Your task to perform on an android device: toggle pop-ups in chrome Image 0: 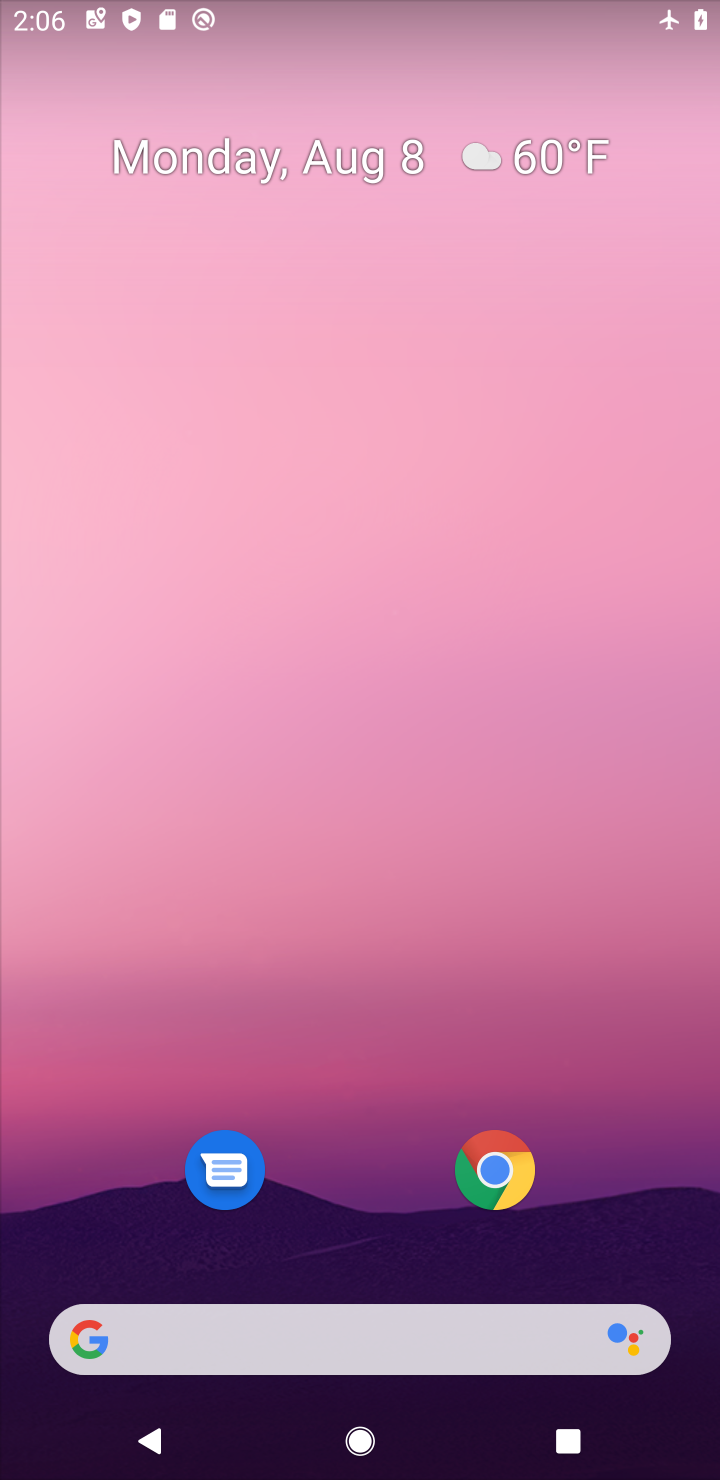
Step 0: click (505, 1178)
Your task to perform on an android device: toggle pop-ups in chrome Image 1: 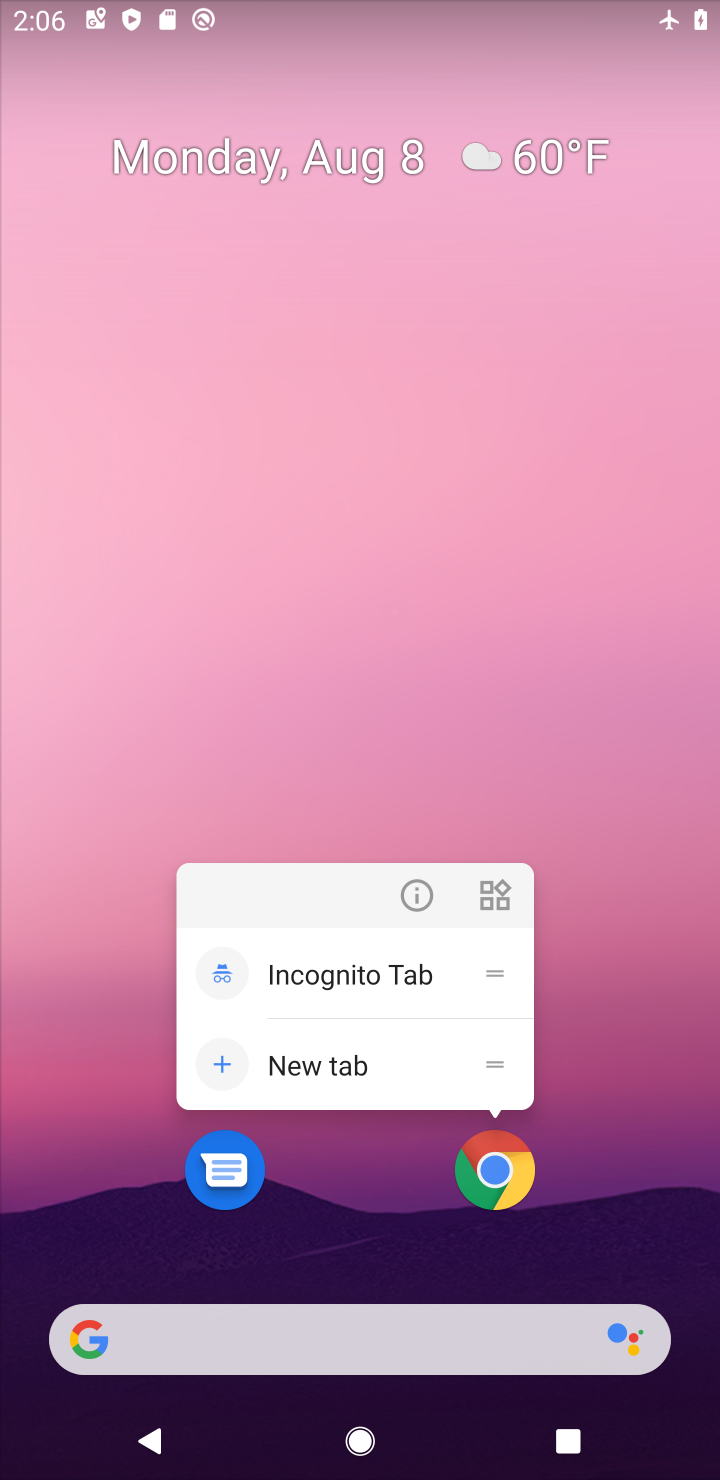
Step 1: click (505, 1178)
Your task to perform on an android device: toggle pop-ups in chrome Image 2: 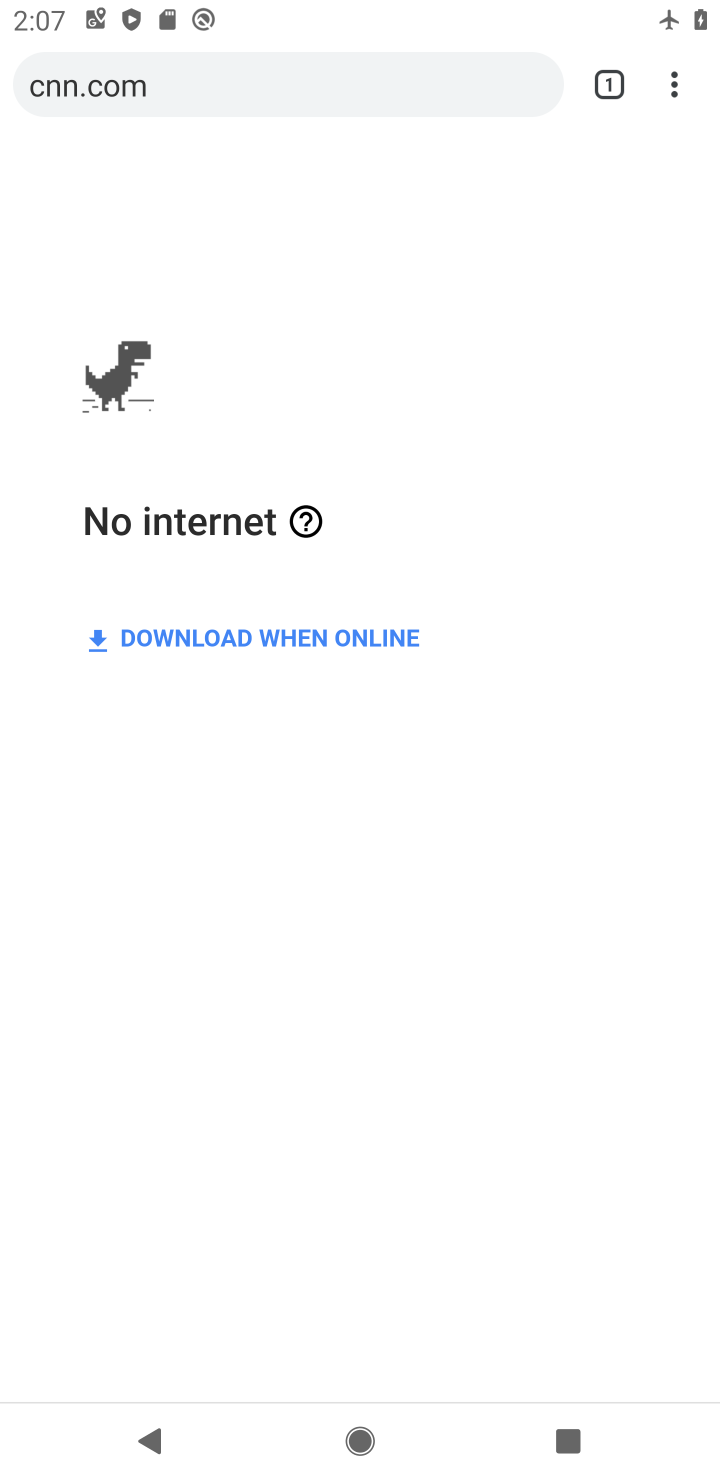
Step 2: click (673, 82)
Your task to perform on an android device: toggle pop-ups in chrome Image 3: 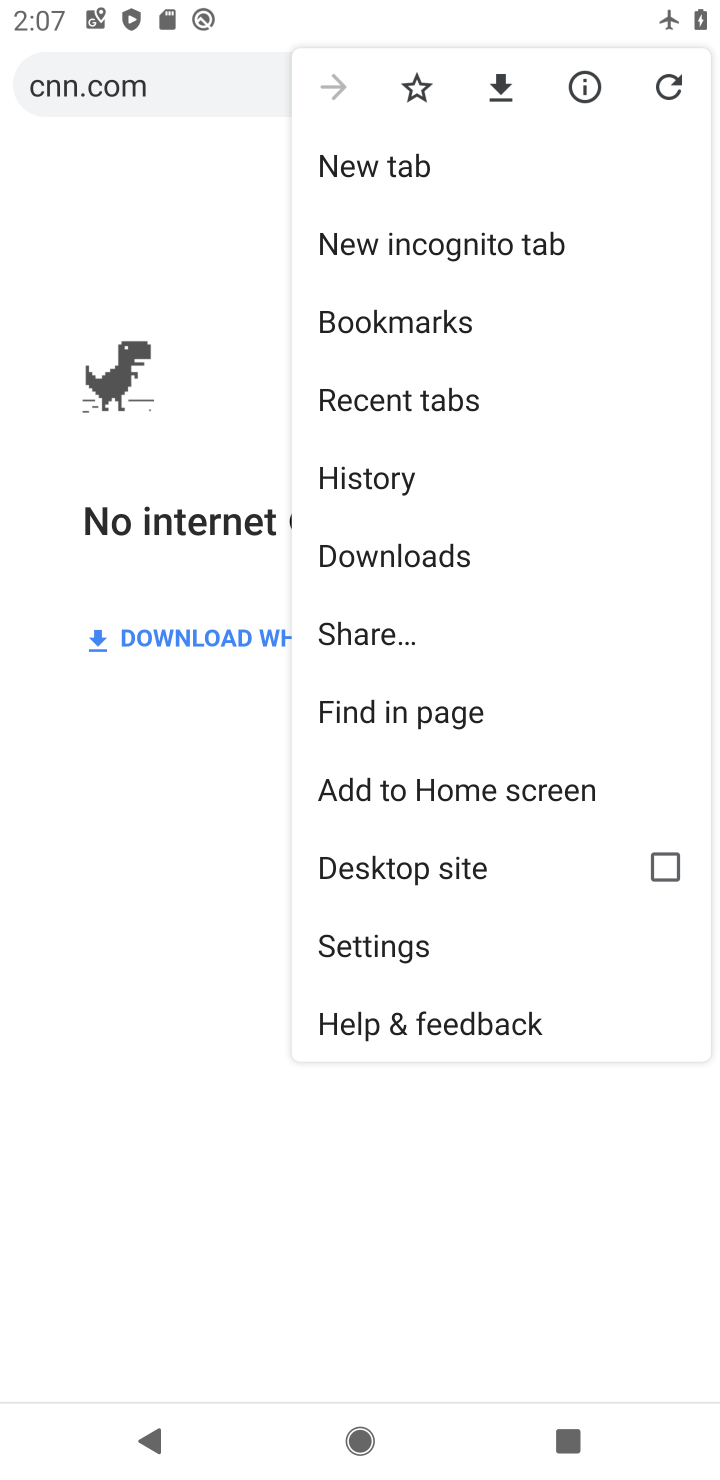
Step 3: click (344, 925)
Your task to perform on an android device: toggle pop-ups in chrome Image 4: 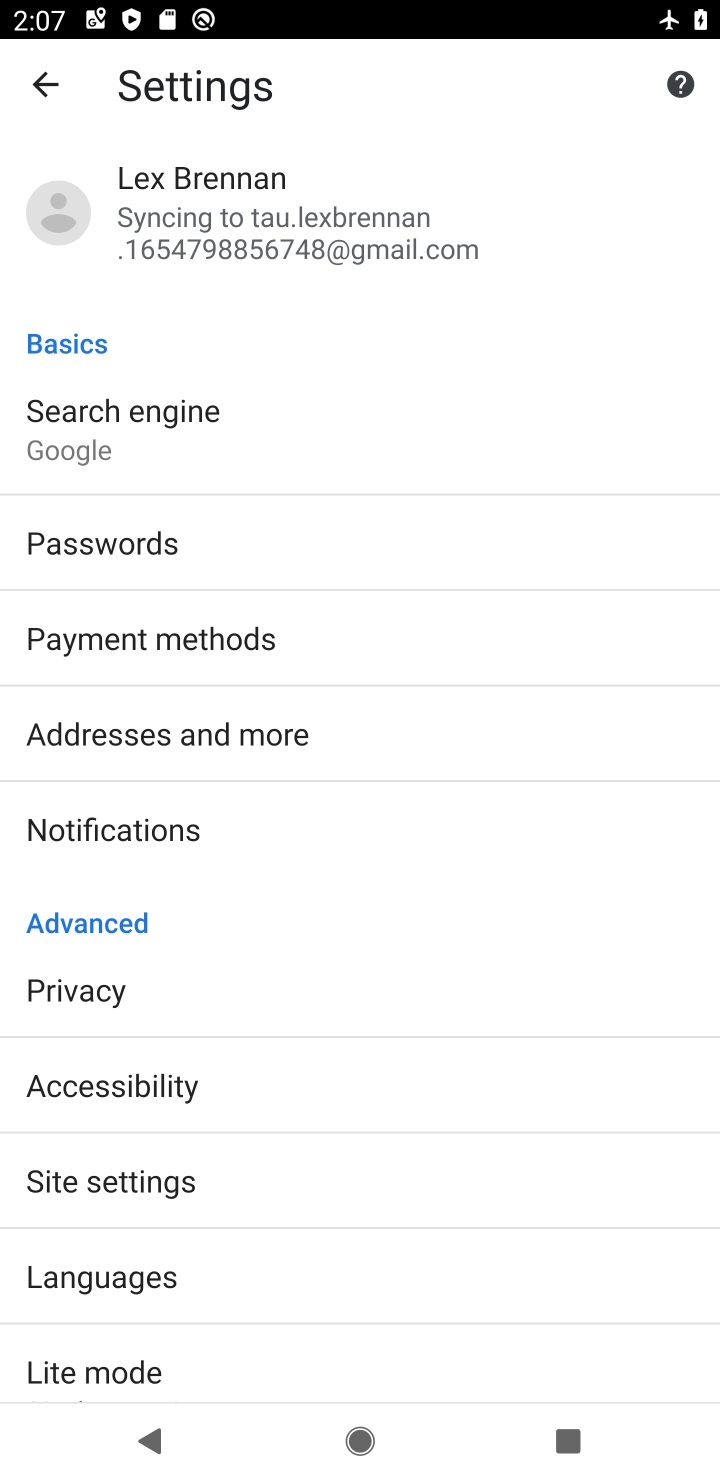
Step 4: drag from (248, 1255) to (343, 736)
Your task to perform on an android device: toggle pop-ups in chrome Image 5: 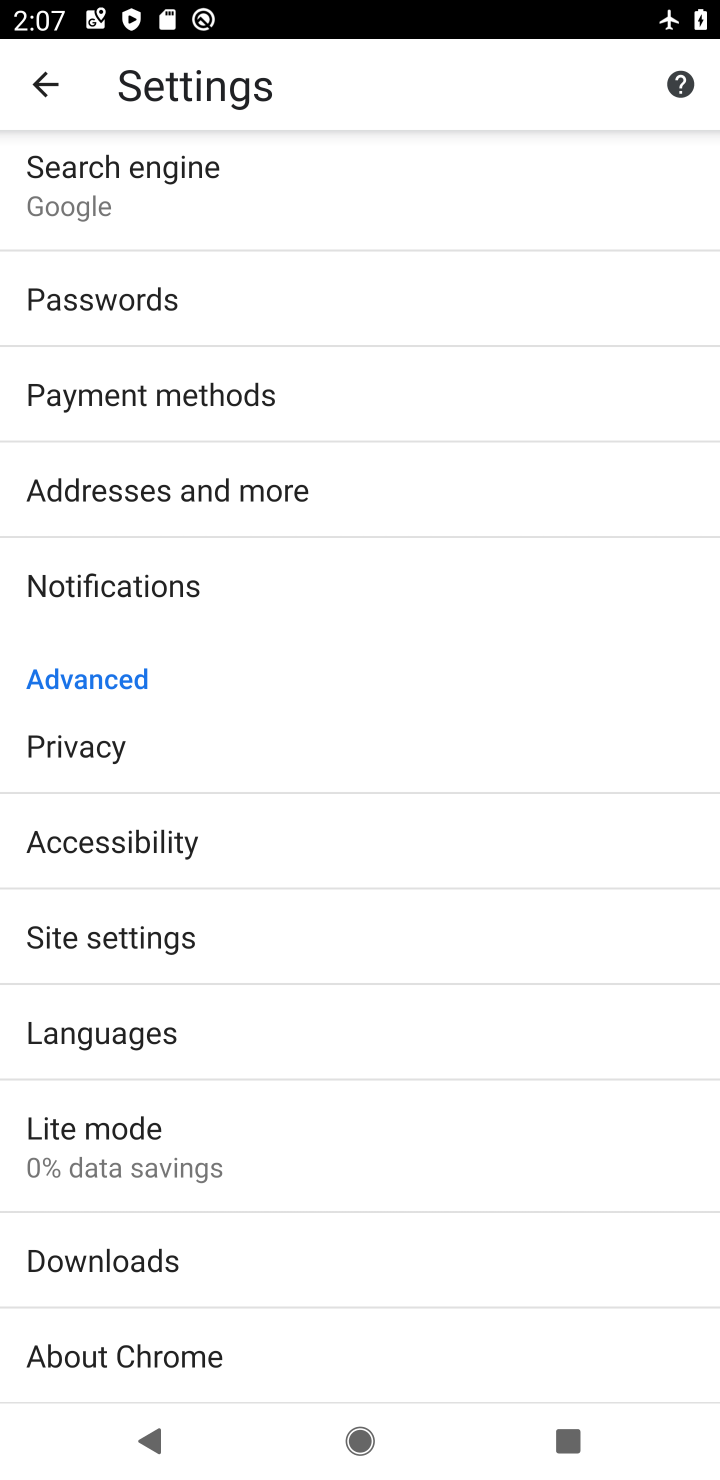
Step 5: click (280, 935)
Your task to perform on an android device: toggle pop-ups in chrome Image 6: 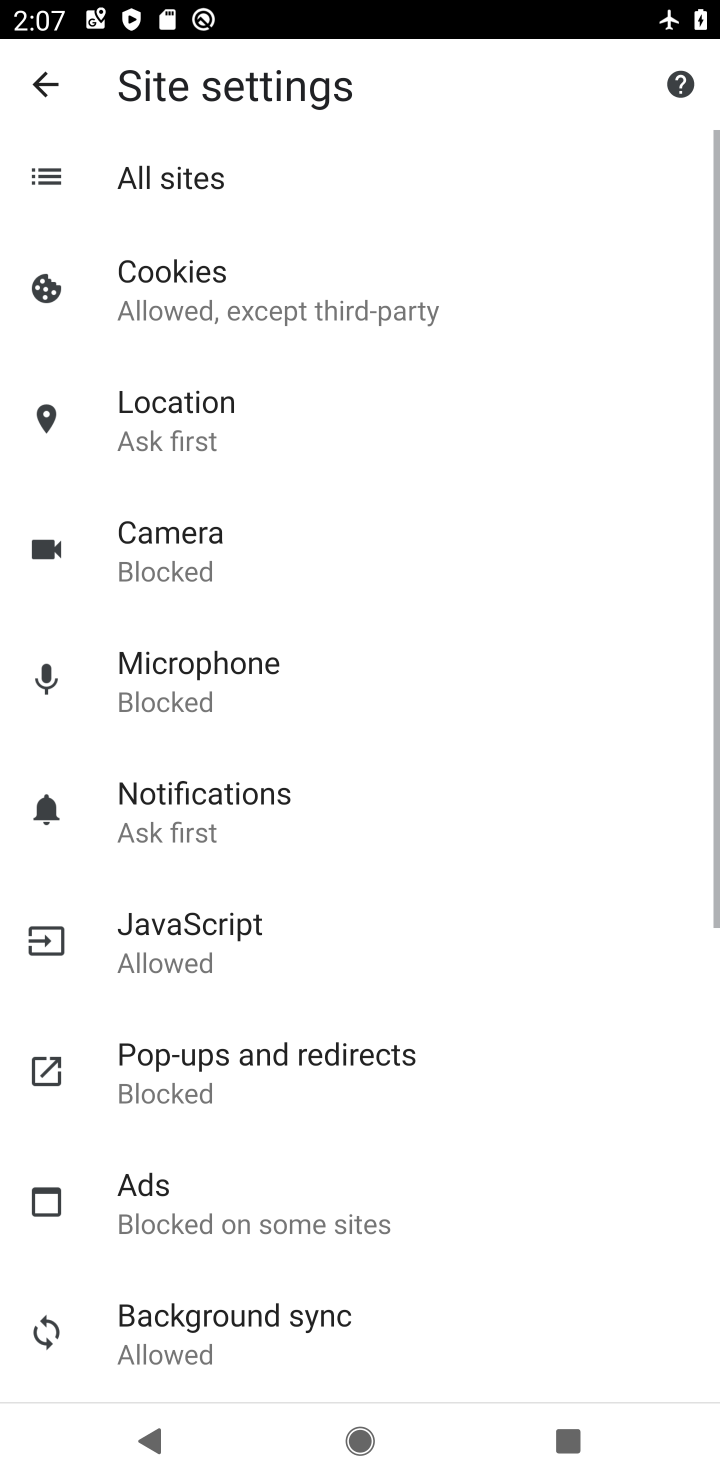
Step 6: click (351, 1035)
Your task to perform on an android device: toggle pop-ups in chrome Image 7: 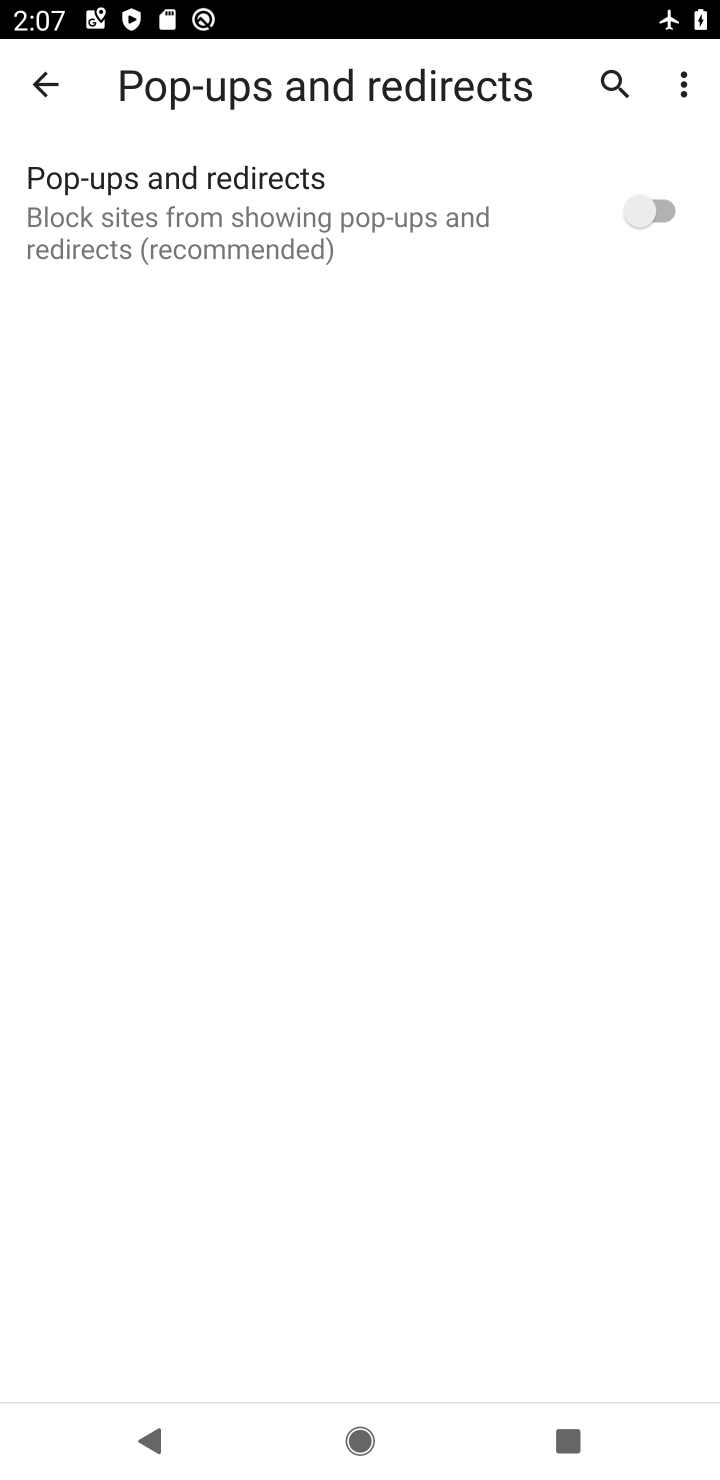
Step 7: click (681, 207)
Your task to perform on an android device: toggle pop-ups in chrome Image 8: 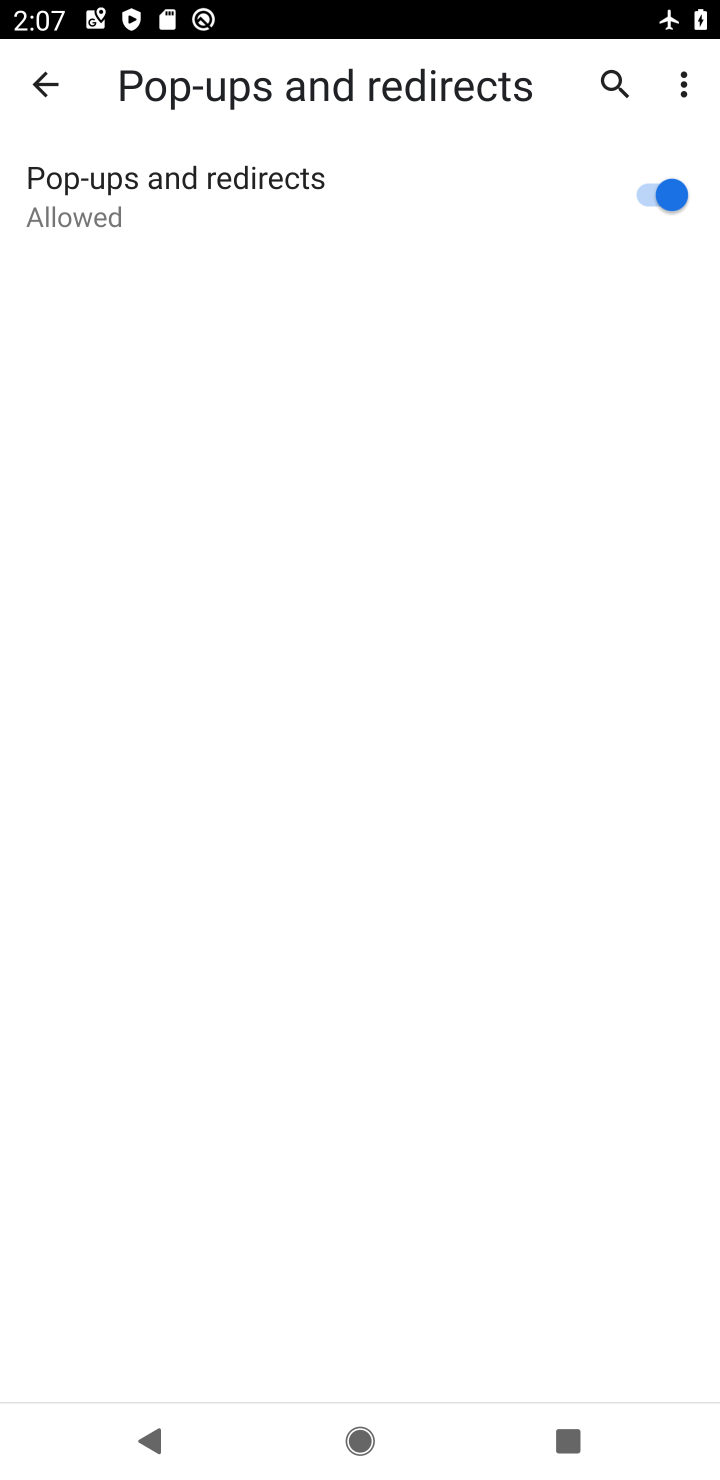
Step 8: task complete